Your task to perform on an android device: turn off location Image 0: 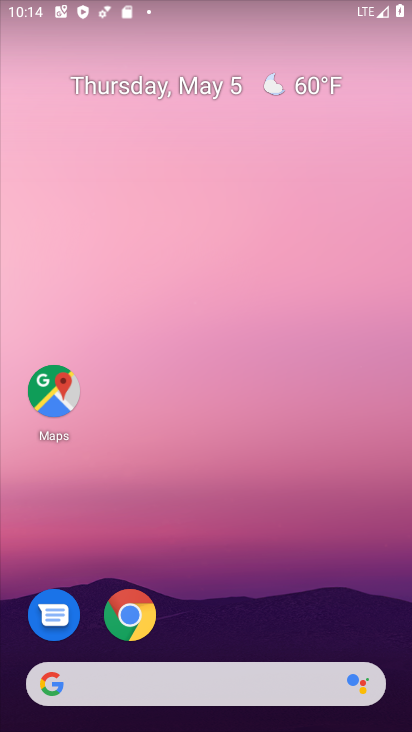
Step 0: drag from (258, 602) to (282, 102)
Your task to perform on an android device: turn off location Image 1: 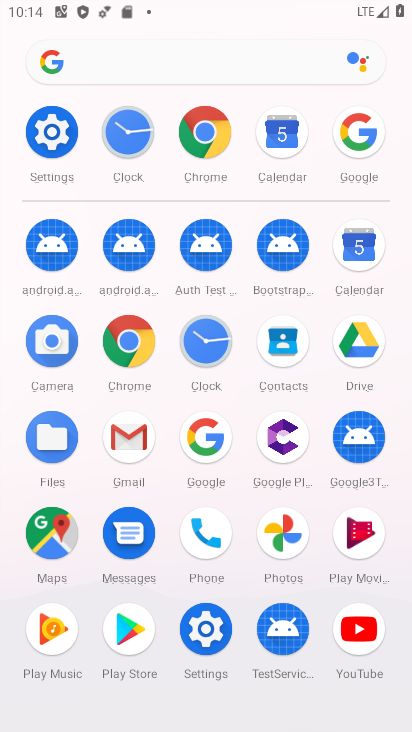
Step 1: click (208, 626)
Your task to perform on an android device: turn off location Image 2: 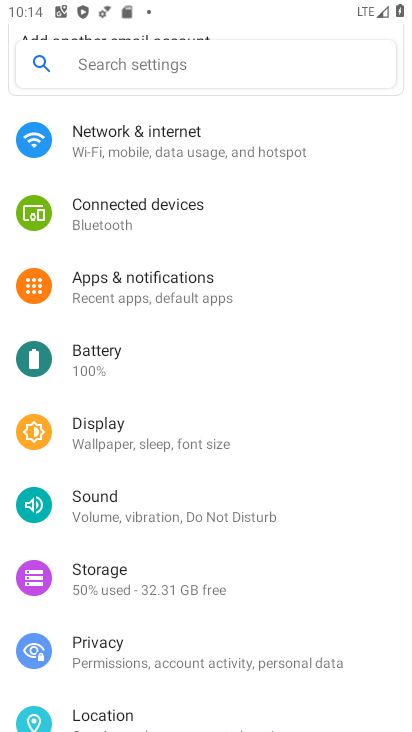
Step 2: drag from (201, 589) to (199, 348)
Your task to perform on an android device: turn off location Image 3: 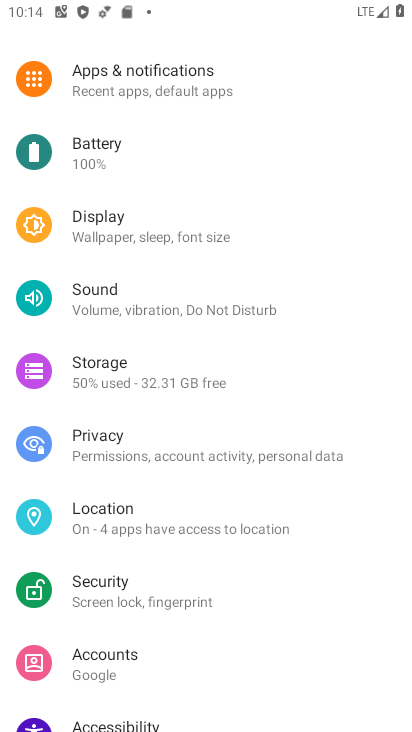
Step 3: click (143, 511)
Your task to perform on an android device: turn off location Image 4: 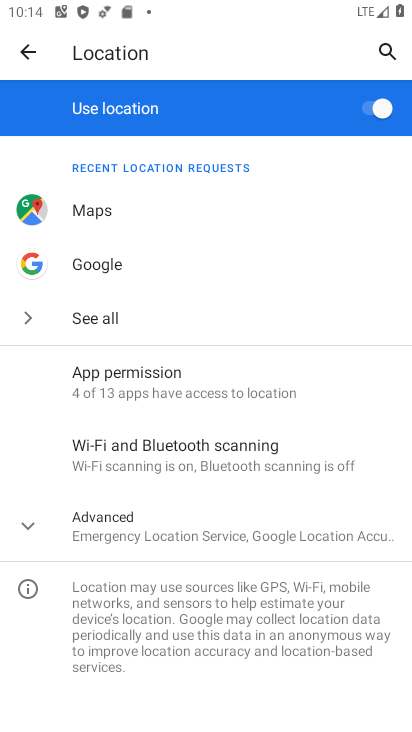
Step 4: click (382, 101)
Your task to perform on an android device: turn off location Image 5: 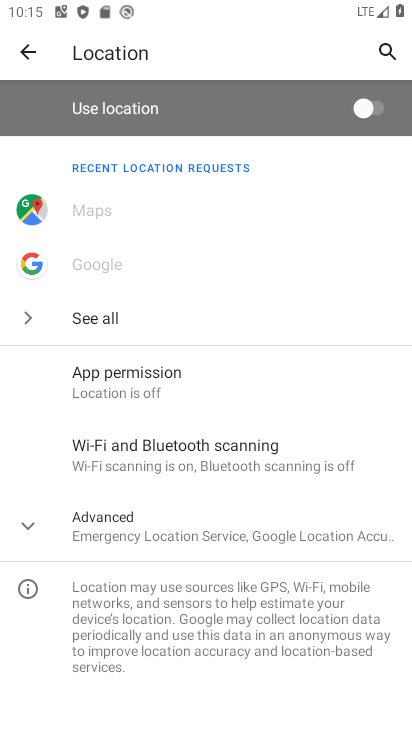
Step 5: task complete